Your task to perform on an android device: toggle priority inbox in the gmail app Image 0: 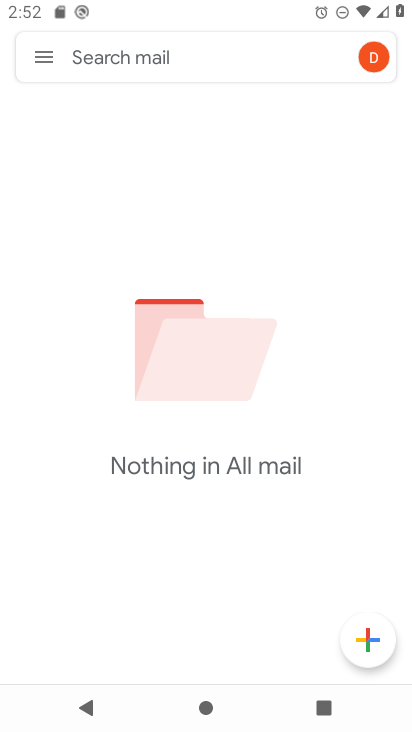
Step 0: press home button
Your task to perform on an android device: toggle priority inbox in the gmail app Image 1: 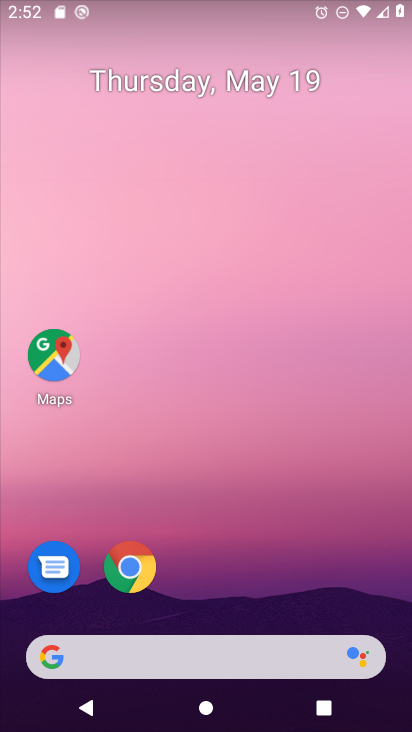
Step 1: drag from (272, 440) to (276, 11)
Your task to perform on an android device: toggle priority inbox in the gmail app Image 2: 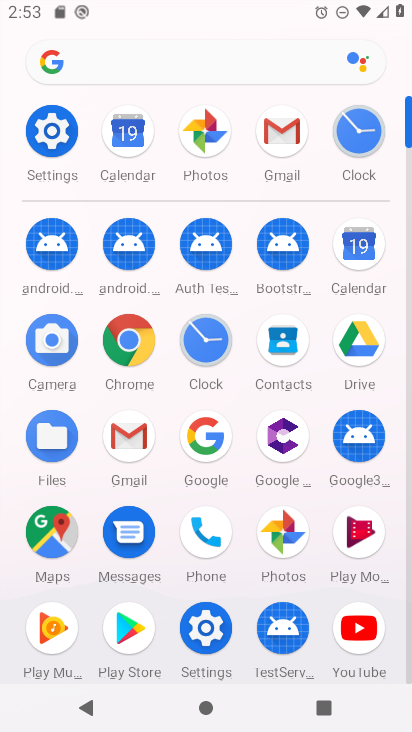
Step 2: click (276, 119)
Your task to perform on an android device: toggle priority inbox in the gmail app Image 3: 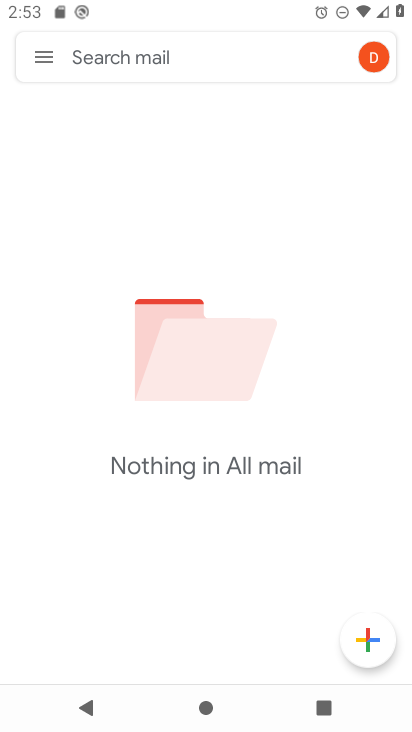
Step 3: click (48, 55)
Your task to perform on an android device: toggle priority inbox in the gmail app Image 4: 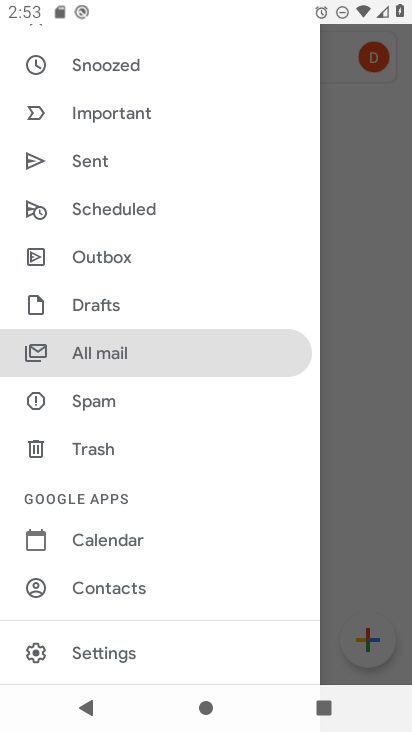
Step 4: click (151, 656)
Your task to perform on an android device: toggle priority inbox in the gmail app Image 5: 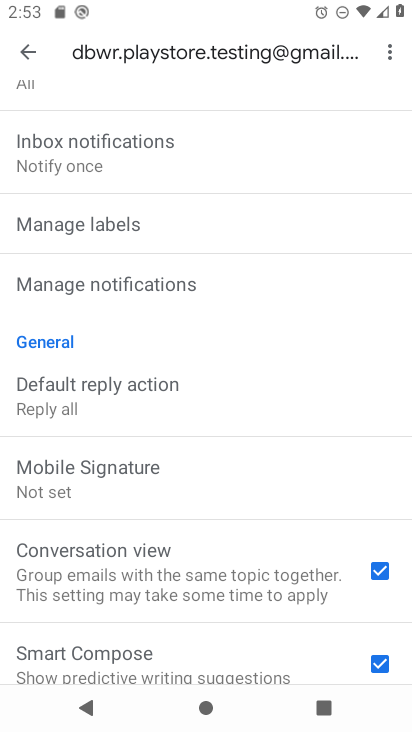
Step 5: drag from (236, 260) to (243, 532)
Your task to perform on an android device: toggle priority inbox in the gmail app Image 6: 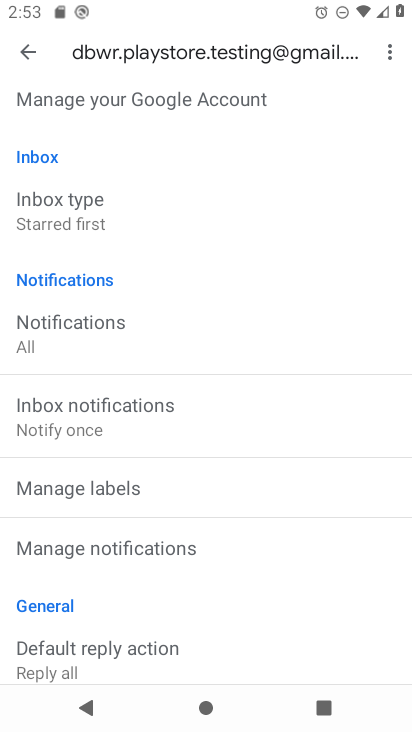
Step 6: click (89, 210)
Your task to perform on an android device: toggle priority inbox in the gmail app Image 7: 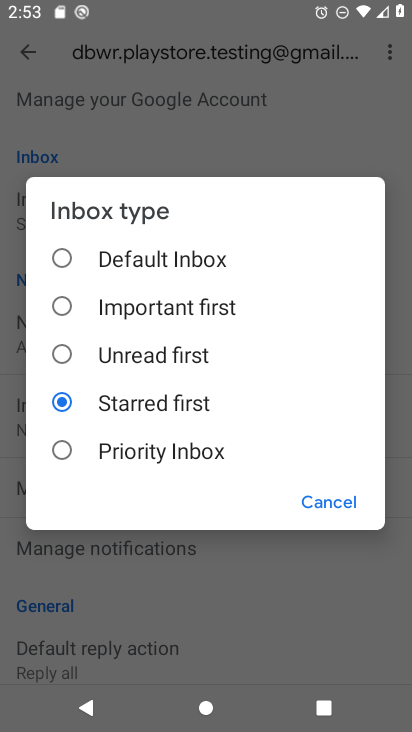
Step 7: click (63, 442)
Your task to perform on an android device: toggle priority inbox in the gmail app Image 8: 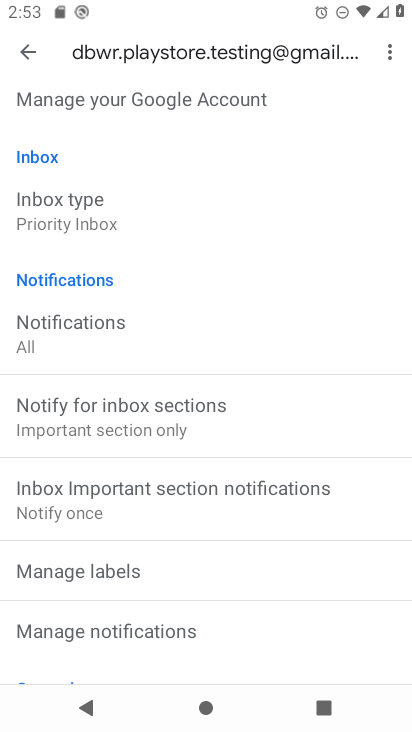
Step 8: task complete